Your task to perform on an android device: find which apps use the phone's location Image 0: 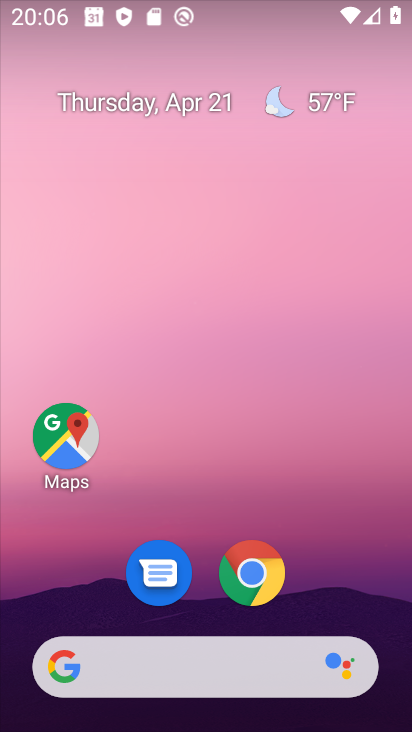
Step 0: drag from (194, 724) to (167, 205)
Your task to perform on an android device: find which apps use the phone's location Image 1: 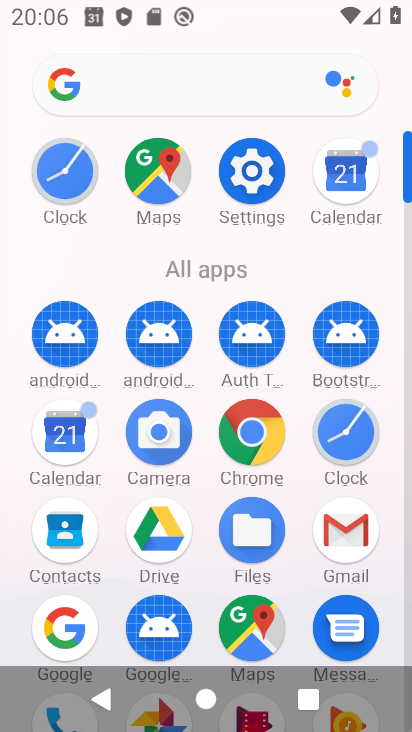
Step 1: click (245, 163)
Your task to perform on an android device: find which apps use the phone's location Image 2: 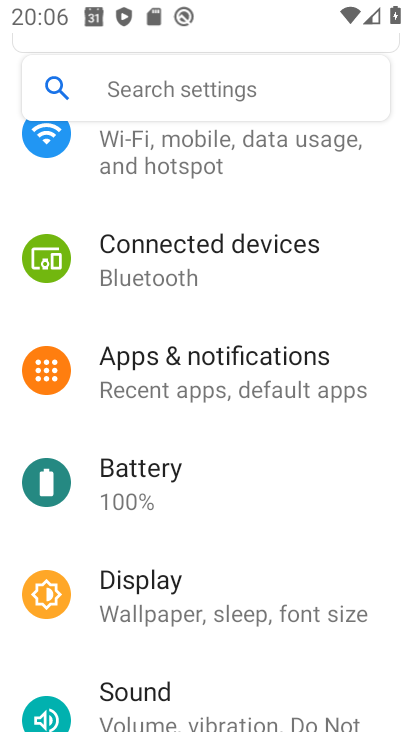
Step 2: drag from (164, 630) to (172, 308)
Your task to perform on an android device: find which apps use the phone's location Image 3: 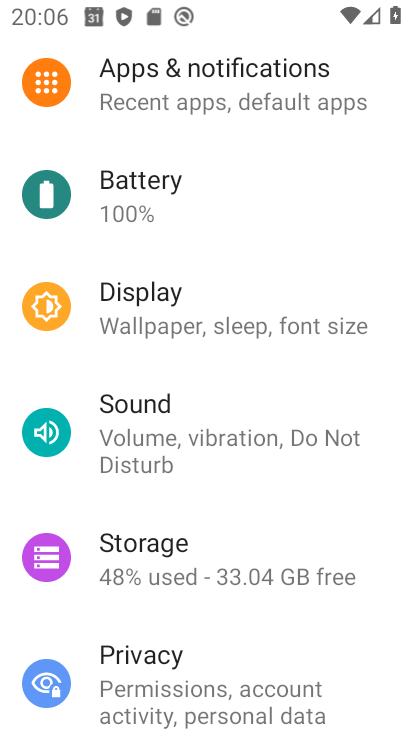
Step 3: drag from (187, 649) to (184, 306)
Your task to perform on an android device: find which apps use the phone's location Image 4: 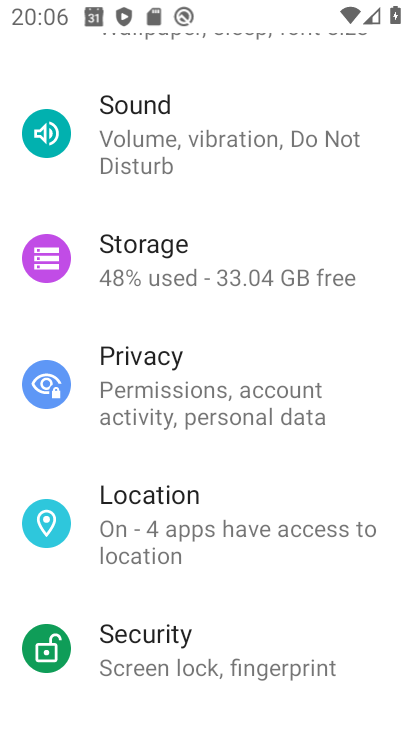
Step 4: click (150, 524)
Your task to perform on an android device: find which apps use the phone's location Image 5: 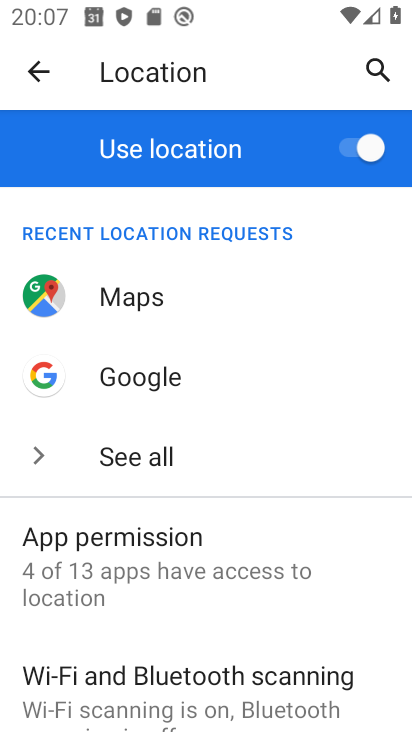
Step 5: click (105, 558)
Your task to perform on an android device: find which apps use the phone's location Image 6: 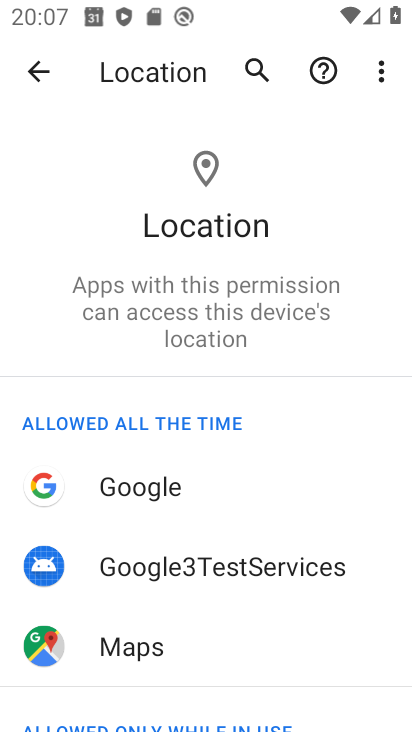
Step 6: task complete